Your task to perform on an android device: open app "Expedia: Hotels, Flights & Car" (install if not already installed) and go to login screen Image 0: 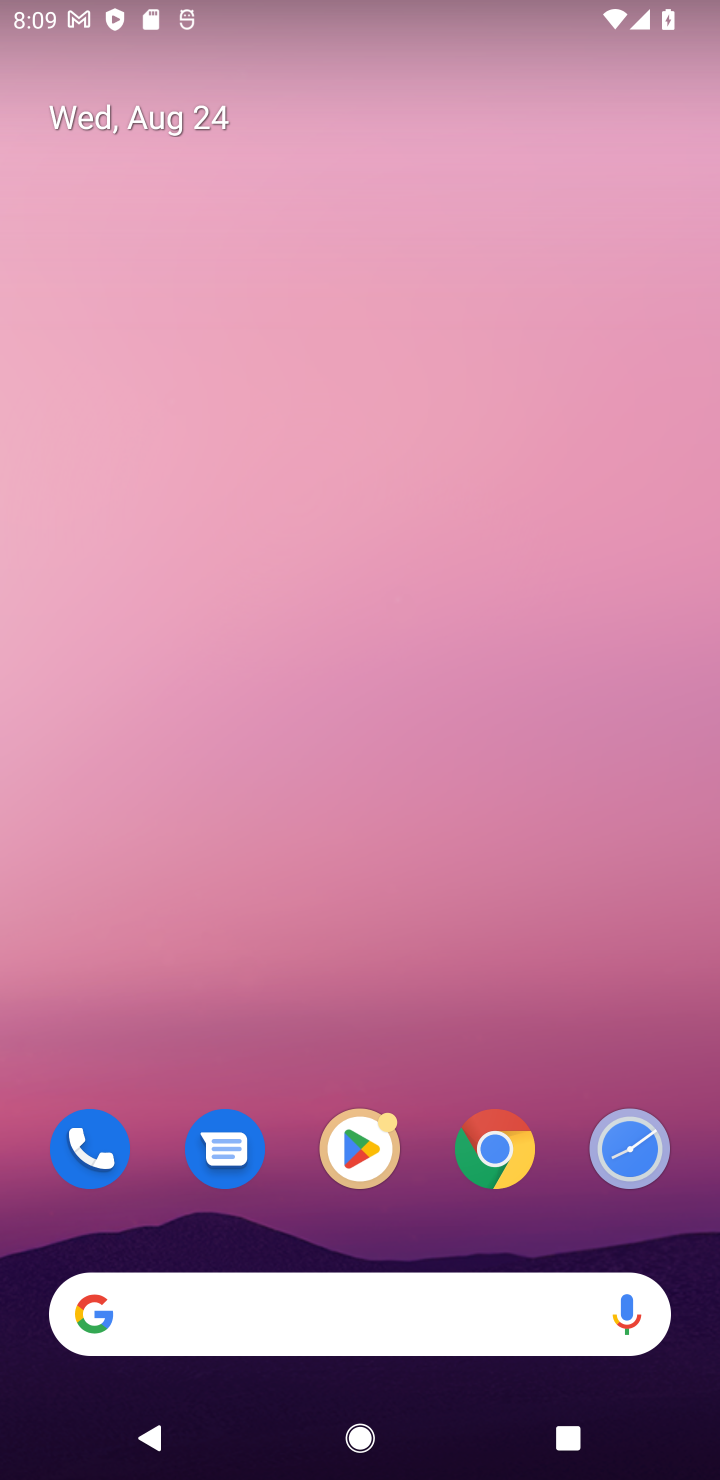
Step 0: click (363, 1150)
Your task to perform on an android device: open app "Expedia: Hotels, Flights & Car" (install if not already installed) and go to login screen Image 1: 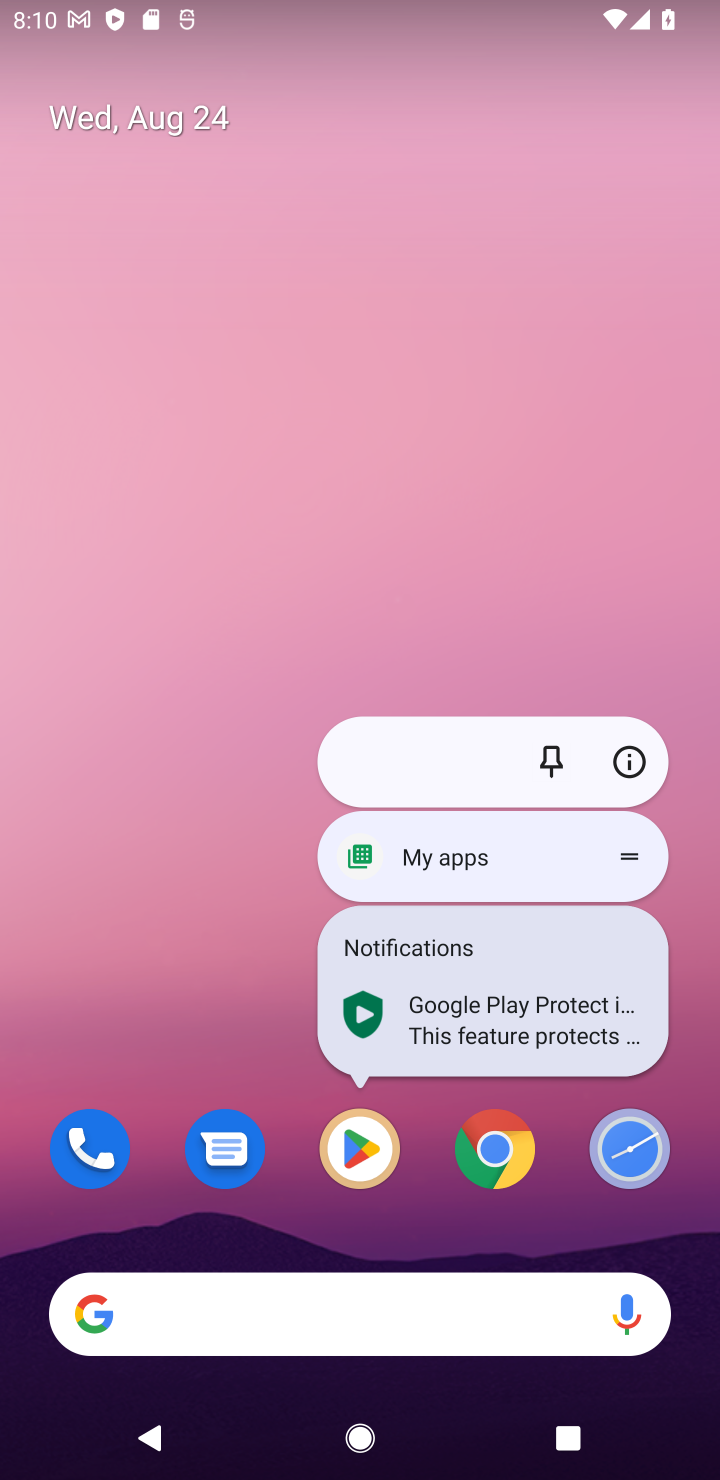
Step 1: click (363, 1150)
Your task to perform on an android device: open app "Expedia: Hotels, Flights & Car" (install if not already installed) and go to login screen Image 2: 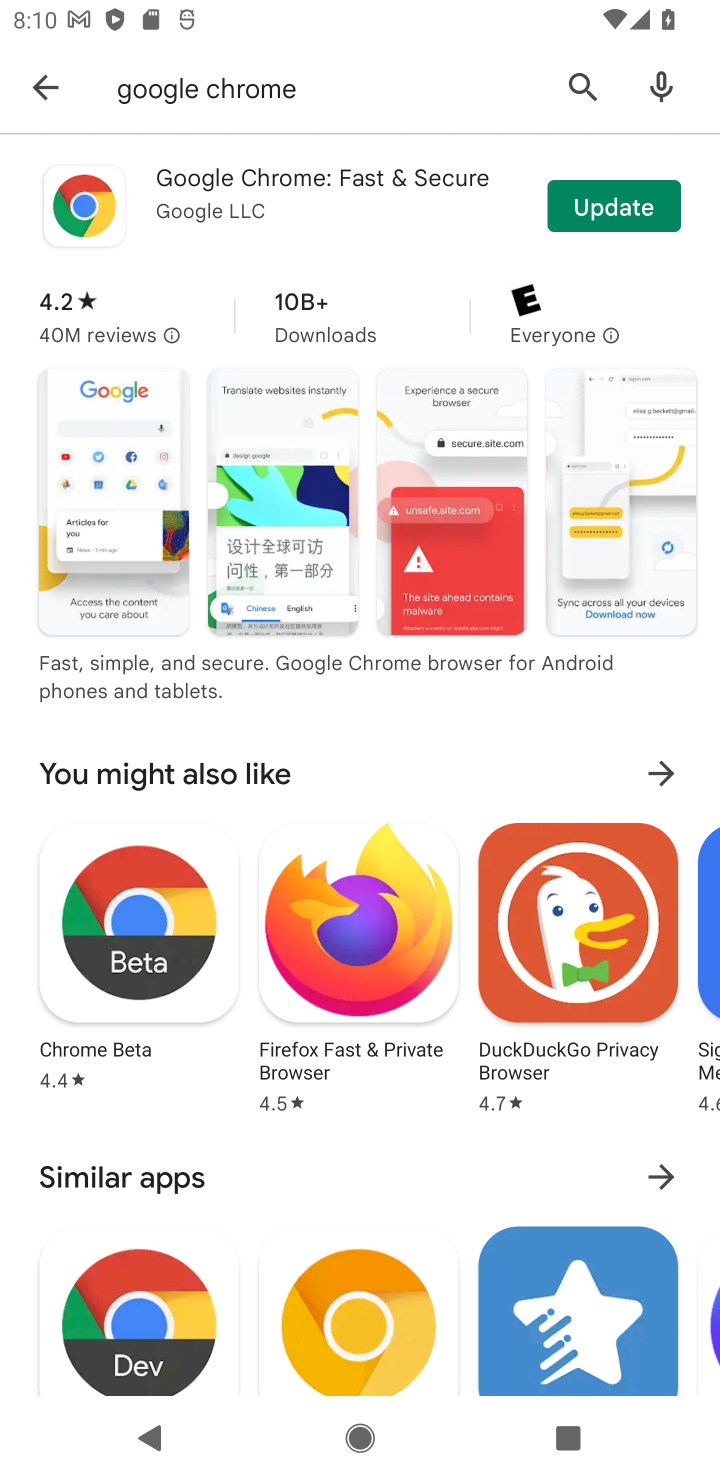
Step 2: click (582, 87)
Your task to perform on an android device: open app "Expedia: Hotels, Flights & Car" (install if not already installed) and go to login screen Image 3: 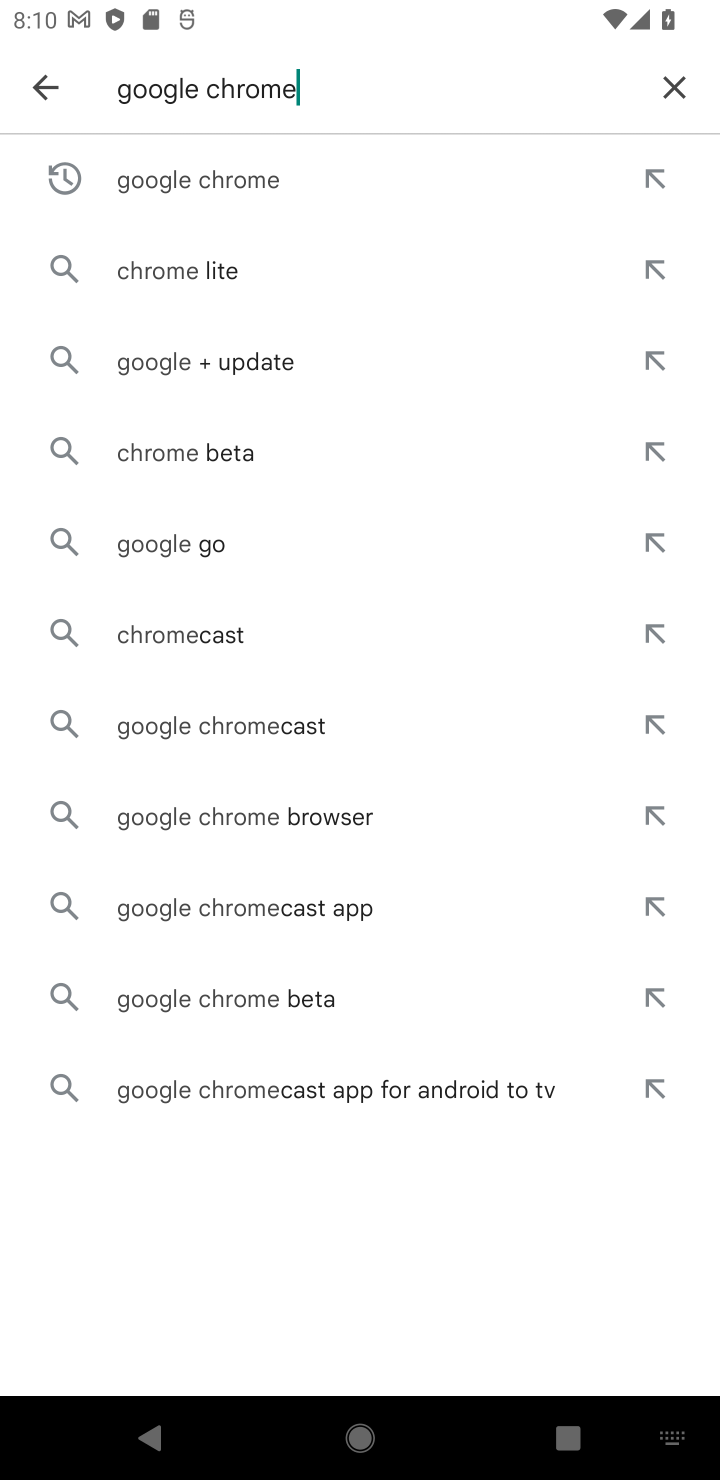
Step 3: click (657, 88)
Your task to perform on an android device: open app "Expedia: Hotels, Flights & Car" (install if not already installed) and go to login screen Image 4: 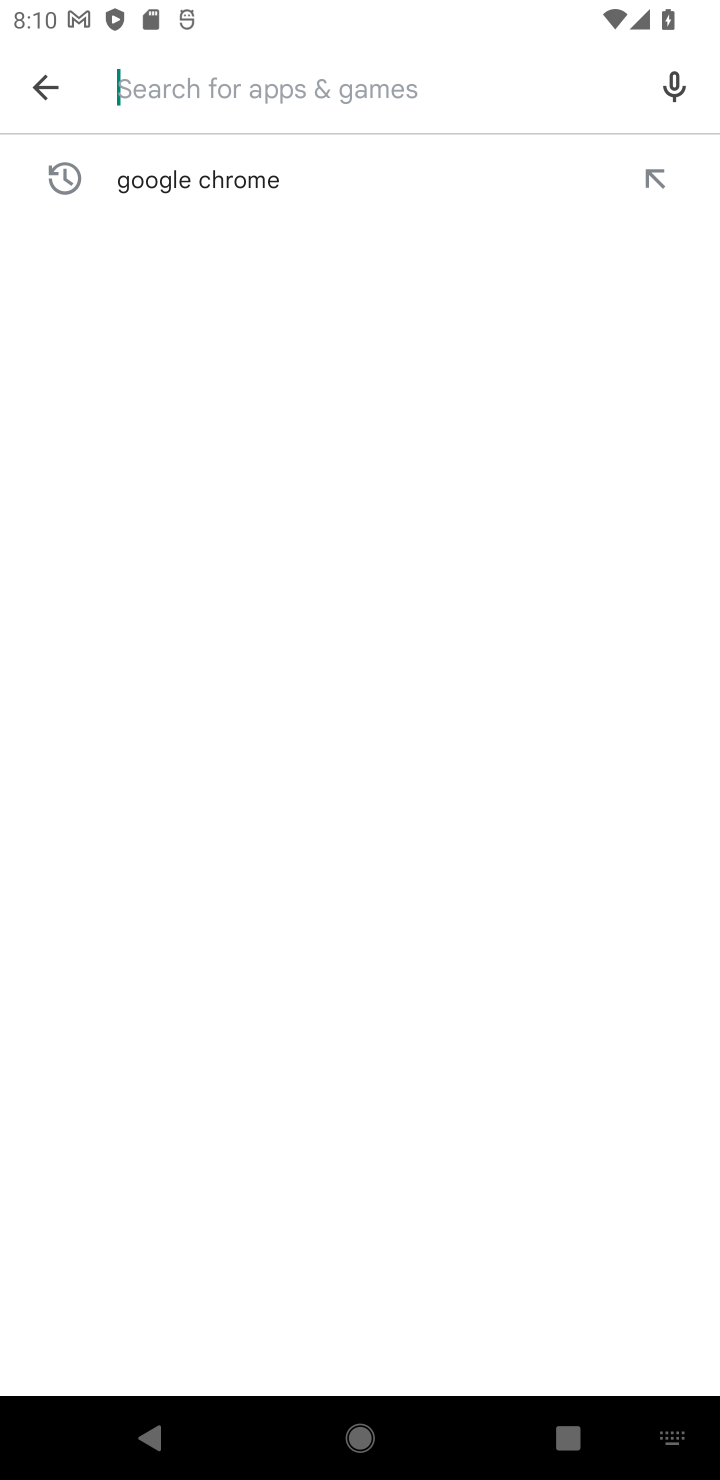
Step 4: type "Expedia: Hotels, Flights & Car"
Your task to perform on an android device: open app "Expedia: Hotels, Flights & Car" (install if not already installed) and go to login screen Image 5: 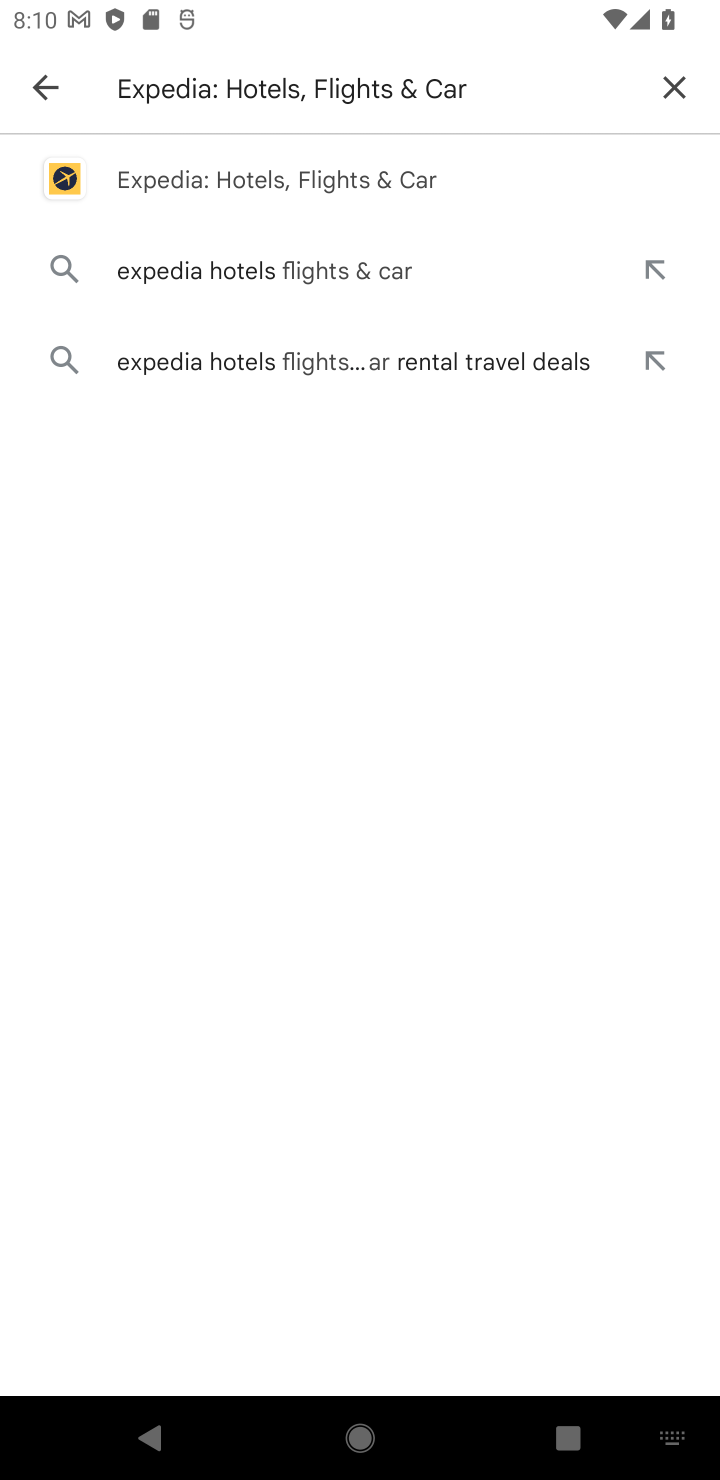
Step 5: click (414, 177)
Your task to perform on an android device: open app "Expedia: Hotels, Flights & Car" (install if not already installed) and go to login screen Image 6: 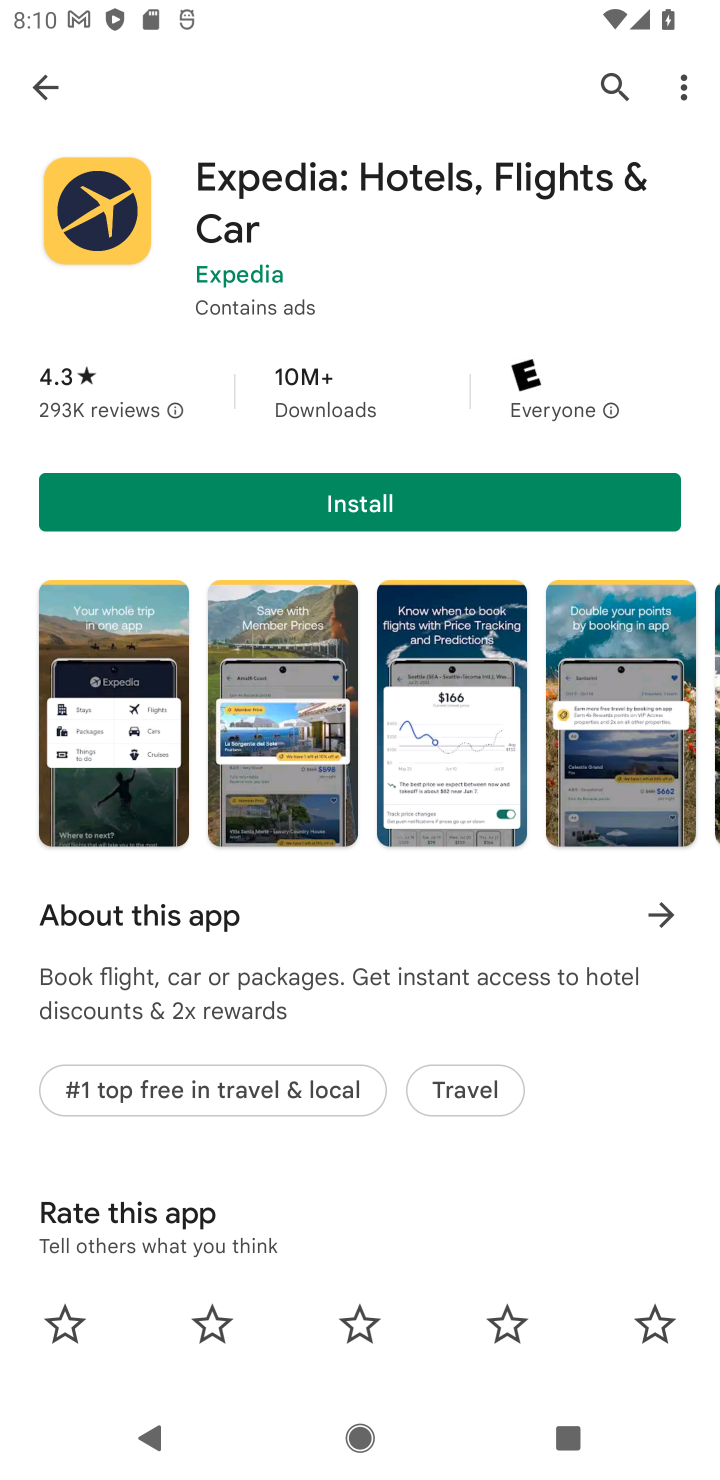
Step 6: click (378, 506)
Your task to perform on an android device: open app "Expedia: Hotels, Flights & Car" (install if not already installed) and go to login screen Image 7: 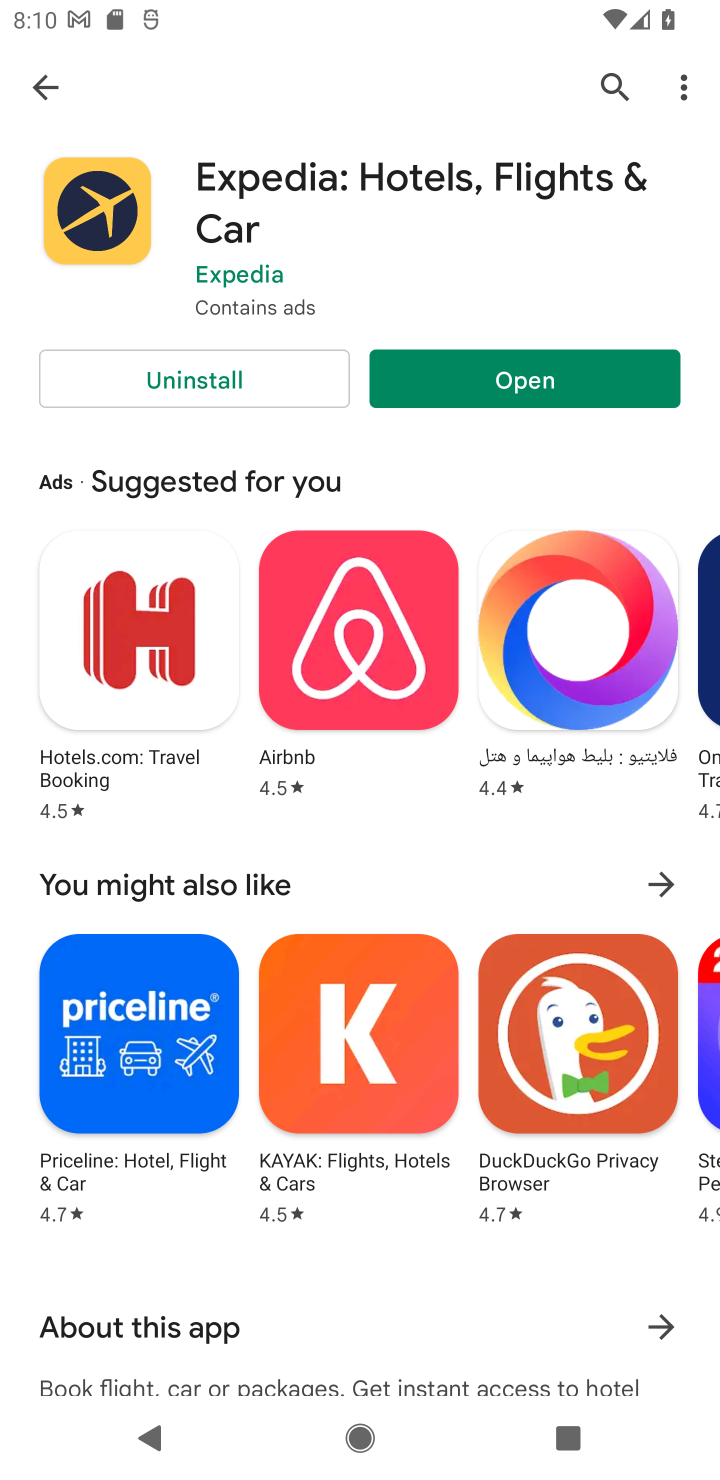
Step 7: click (615, 357)
Your task to perform on an android device: open app "Expedia: Hotels, Flights & Car" (install if not already installed) and go to login screen Image 8: 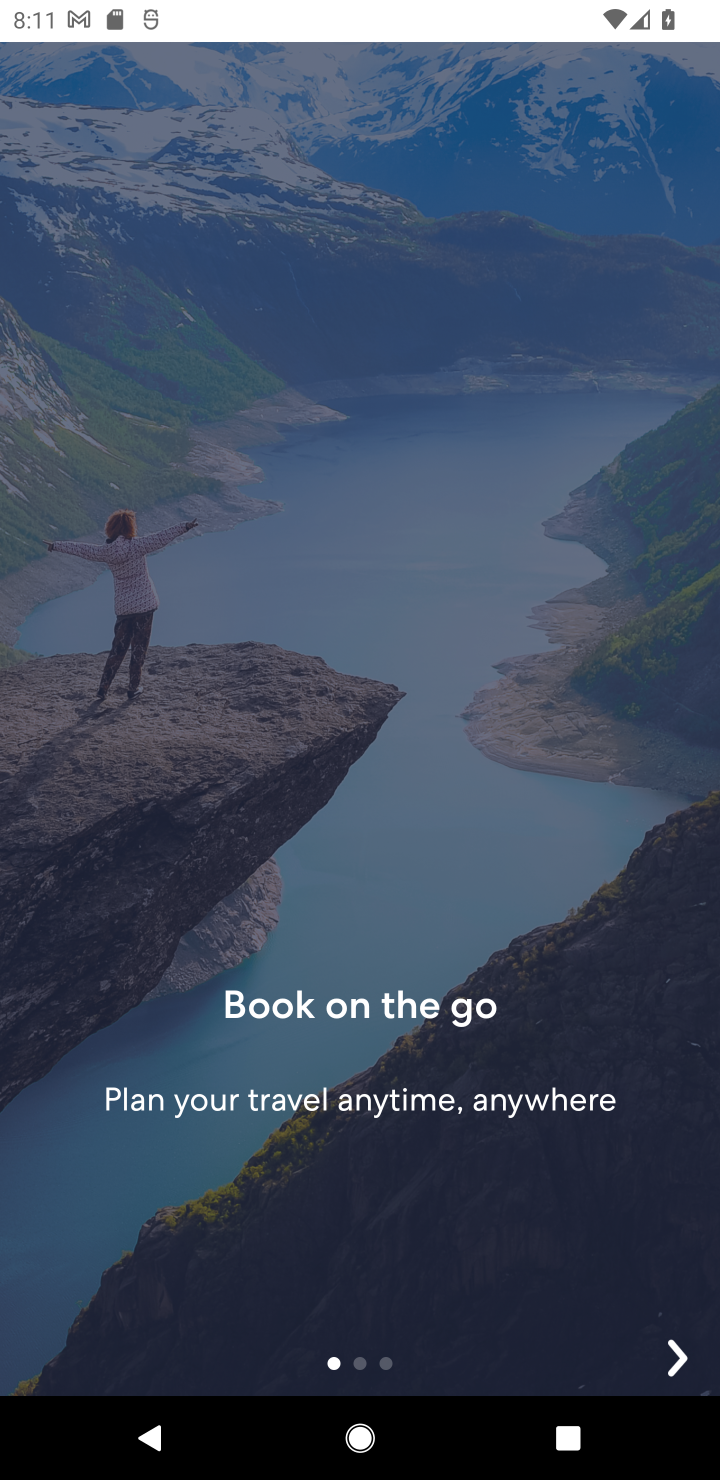
Step 8: task complete